Your task to perform on an android device: find snoozed emails in the gmail app Image 0: 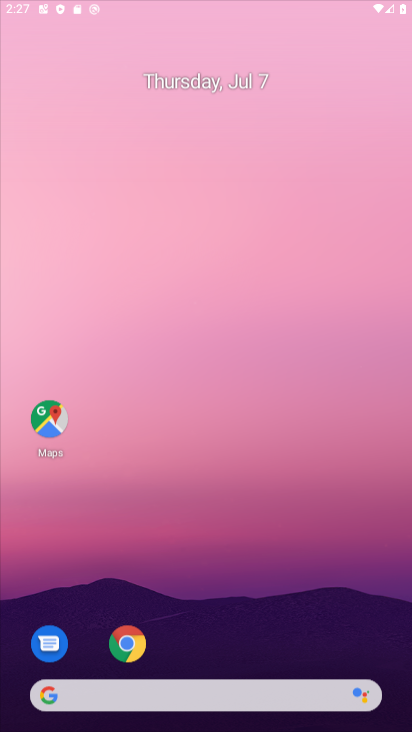
Step 0: press home button
Your task to perform on an android device: find snoozed emails in the gmail app Image 1: 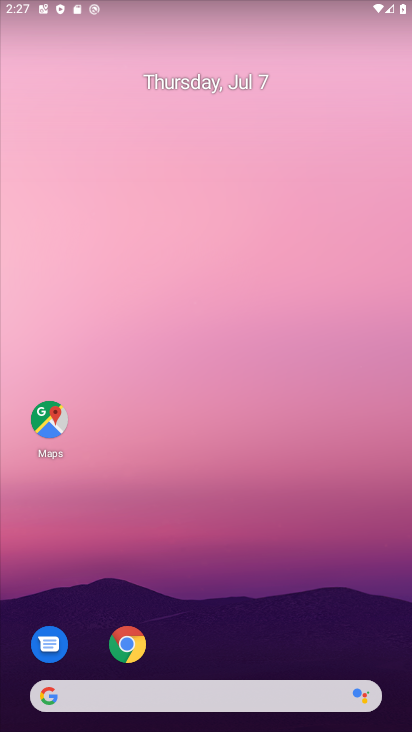
Step 1: drag from (333, 634) to (302, 13)
Your task to perform on an android device: find snoozed emails in the gmail app Image 2: 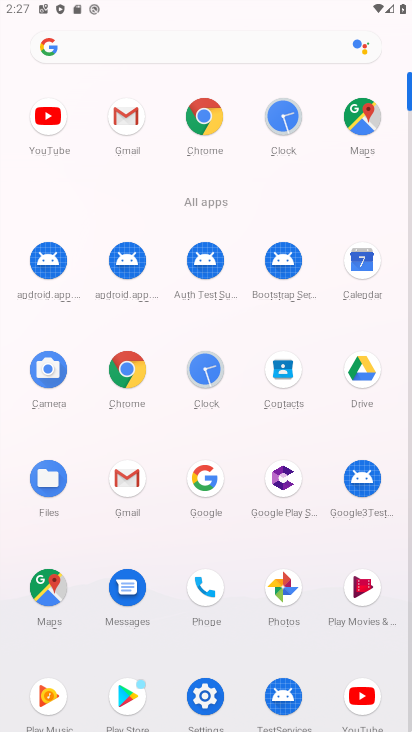
Step 2: click (125, 118)
Your task to perform on an android device: find snoozed emails in the gmail app Image 3: 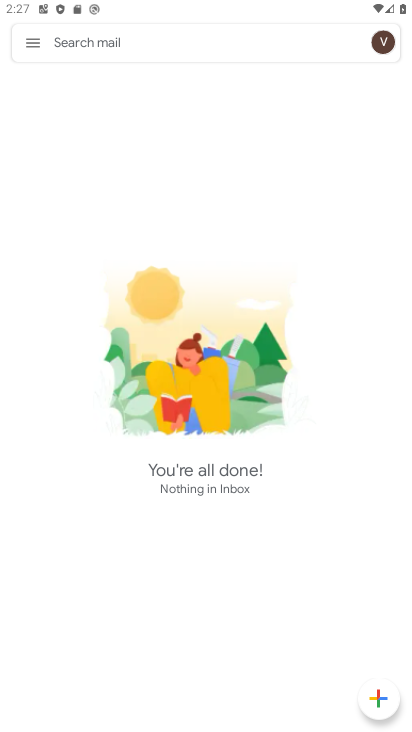
Step 3: click (32, 46)
Your task to perform on an android device: find snoozed emails in the gmail app Image 4: 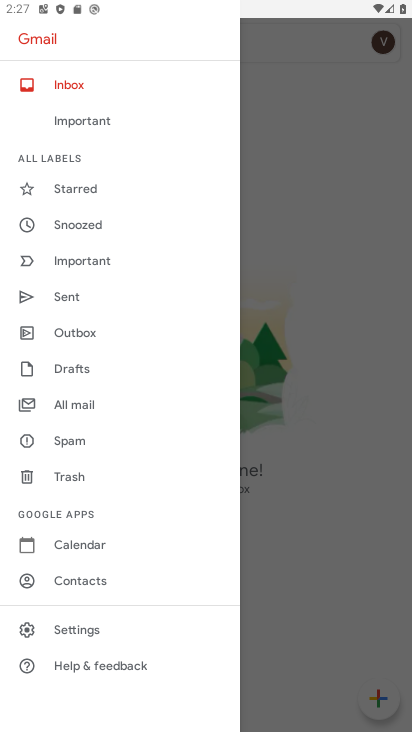
Step 4: click (67, 220)
Your task to perform on an android device: find snoozed emails in the gmail app Image 5: 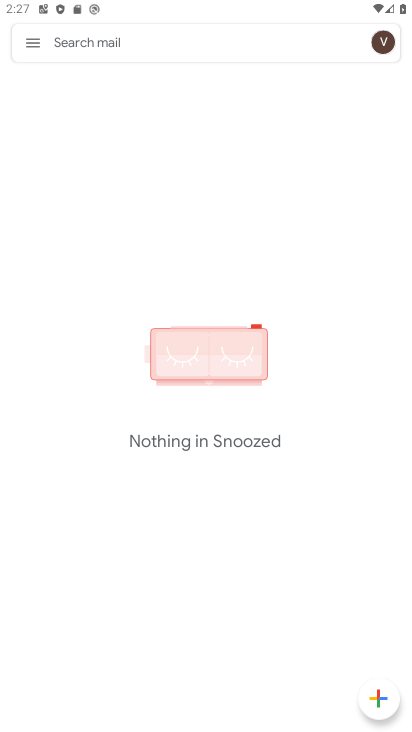
Step 5: task complete